Your task to perform on an android device: Go to eBay Image 0: 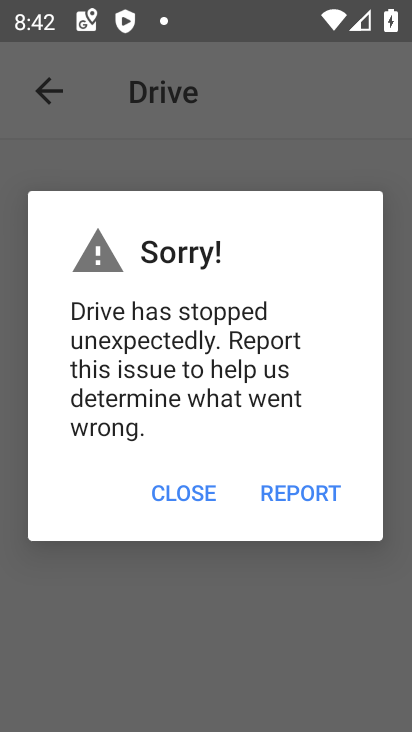
Step 0: press home button
Your task to perform on an android device: Go to eBay Image 1: 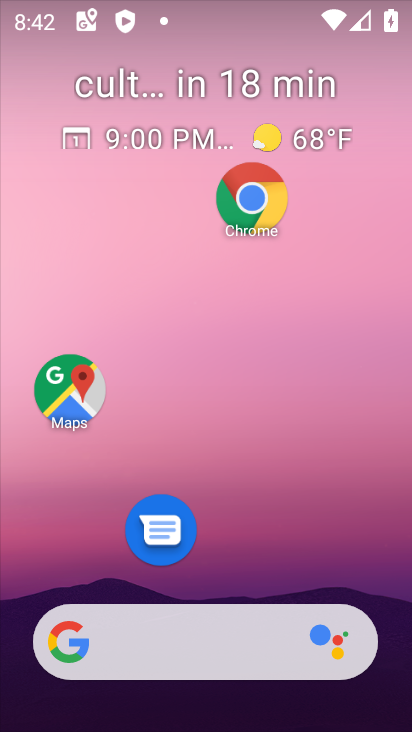
Step 1: click (255, 220)
Your task to perform on an android device: Go to eBay Image 2: 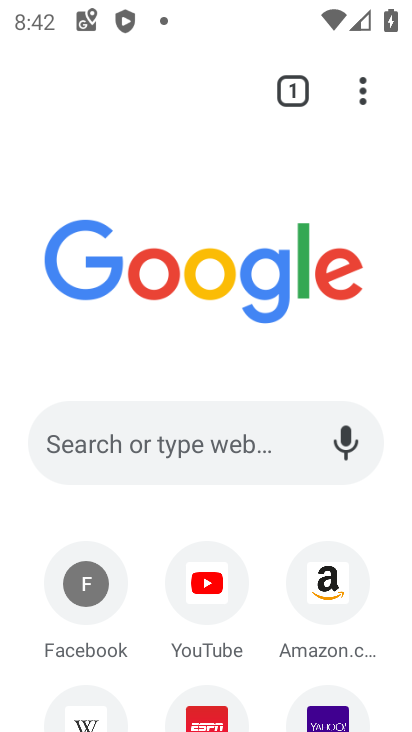
Step 2: click (195, 429)
Your task to perform on an android device: Go to eBay Image 3: 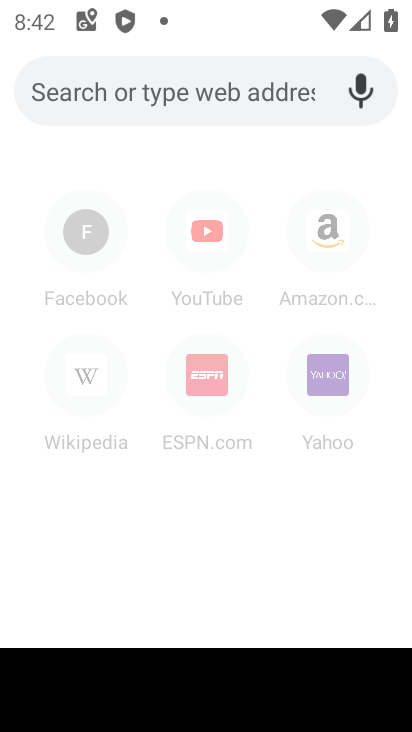
Step 3: type "eBay"
Your task to perform on an android device: Go to eBay Image 4: 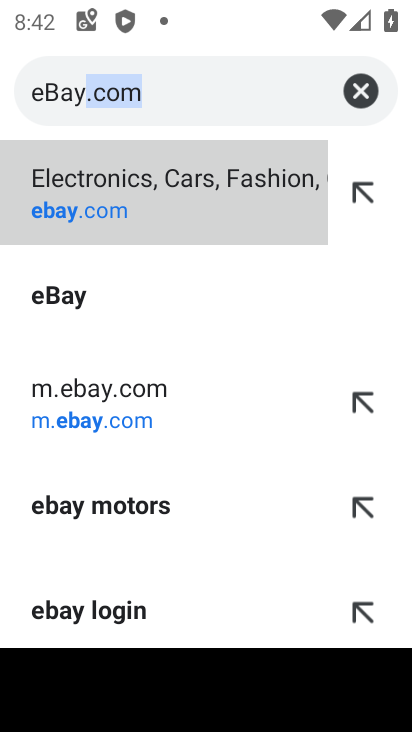
Step 4: click (103, 212)
Your task to perform on an android device: Go to eBay Image 5: 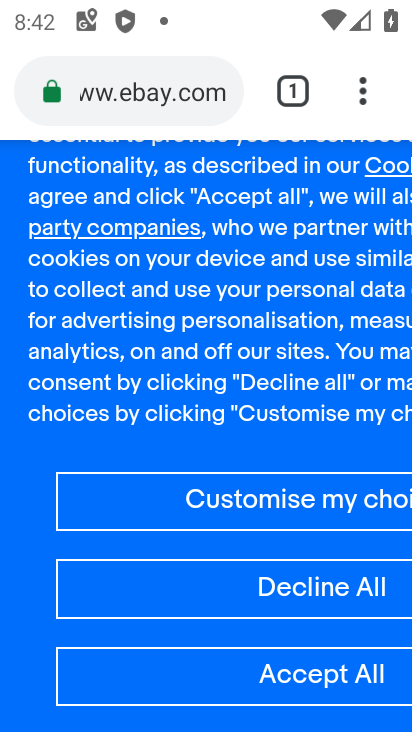
Step 5: task complete